Your task to perform on an android device: Open location settings Image 0: 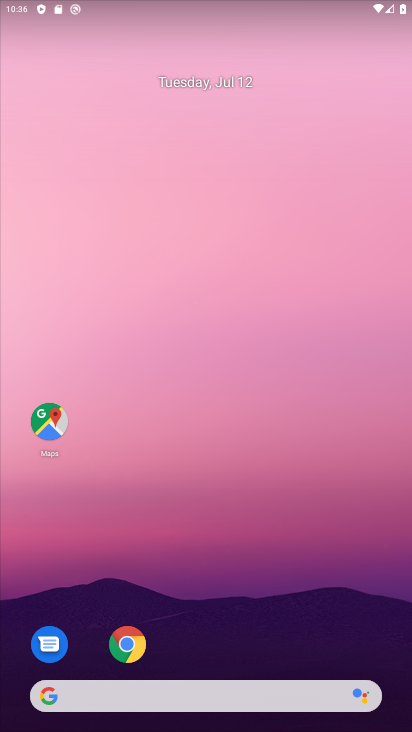
Step 0: drag from (212, 528) to (178, 149)
Your task to perform on an android device: Open location settings Image 1: 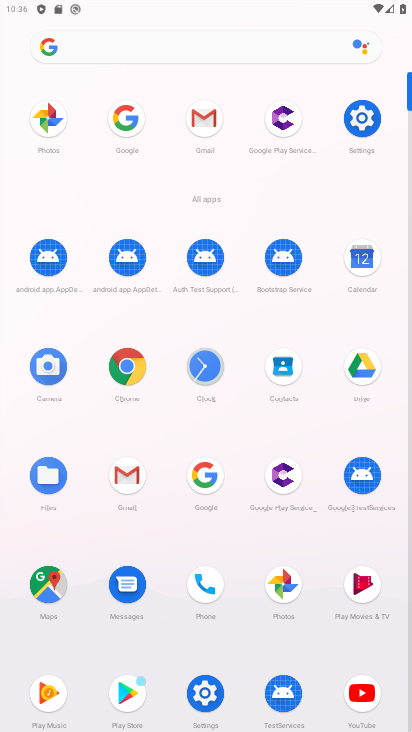
Step 1: click (347, 124)
Your task to perform on an android device: Open location settings Image 2: 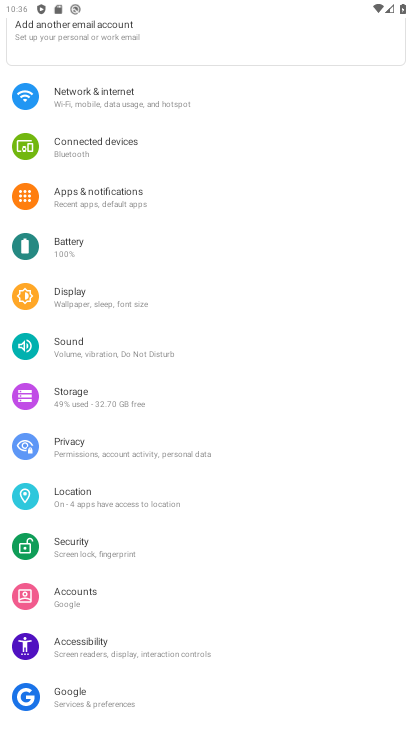
Step 2: click (84, 497)
Your task to perform on an android device: Open location settings Image 3: 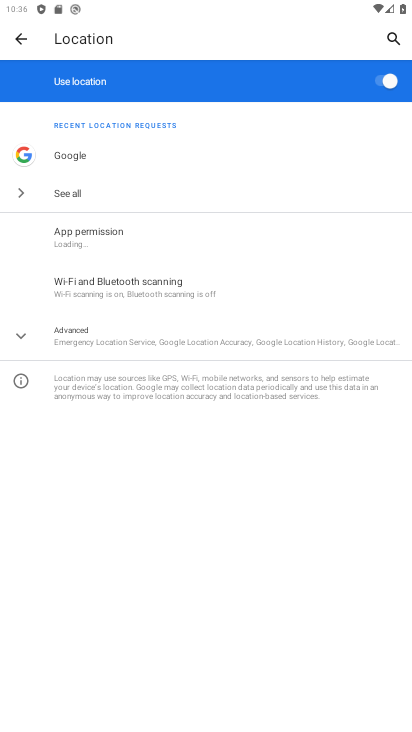
Step 3: task complete